Your task to perform on an android device: Open Google Chrome and open the bookmarks view Image 0: 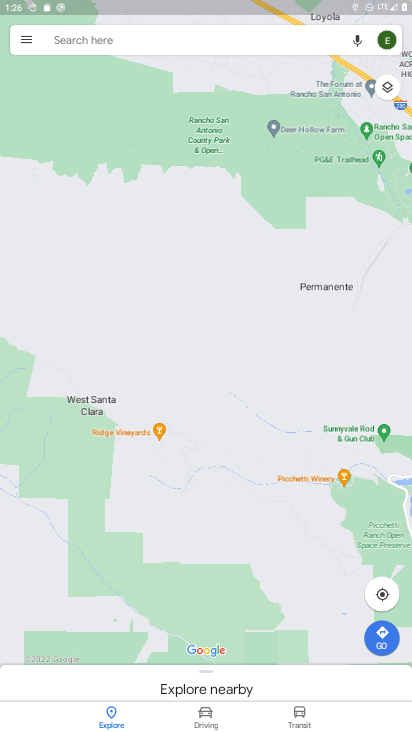
Step 0: press home button
Your task to perform on an android device: Open Google Chrome and open the bookmarks view Image 1: 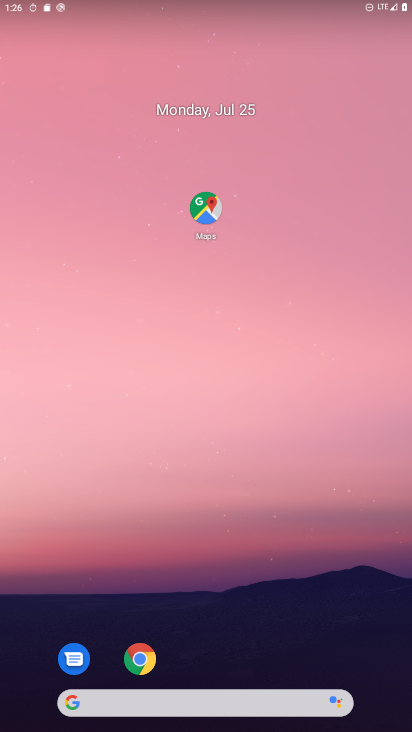
Step 1: click (136, 660)
Your task to perform on an android device: Open Google Chrome and open the bookmarks view Image 2: 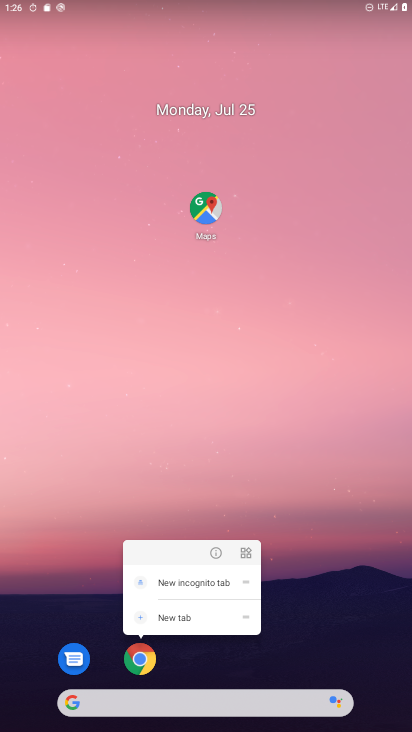
Step 2: click (136, 661)
Your task to perform on an android device: Open Google Chrome and open the bookmarks view Image 3: 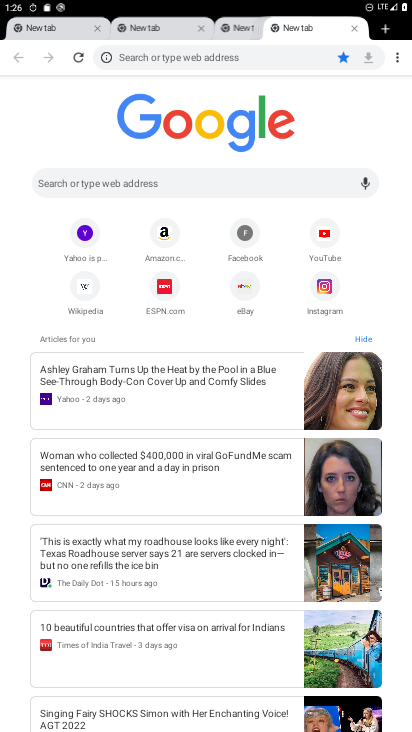
Step 3: click (396, 52)
Your task to perform on an android device: Open Google Chrome and open the bookmarks view Image 4: 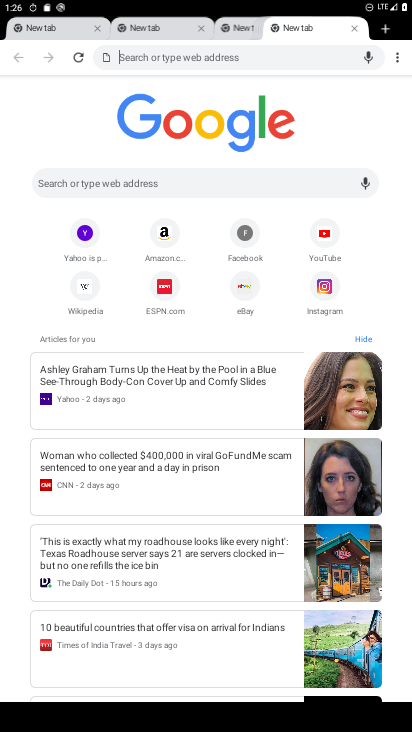
Step 4: click (399, 64)
Your task to perform on an android device: Open Google Chrome and open the bookmarks view Image 5: 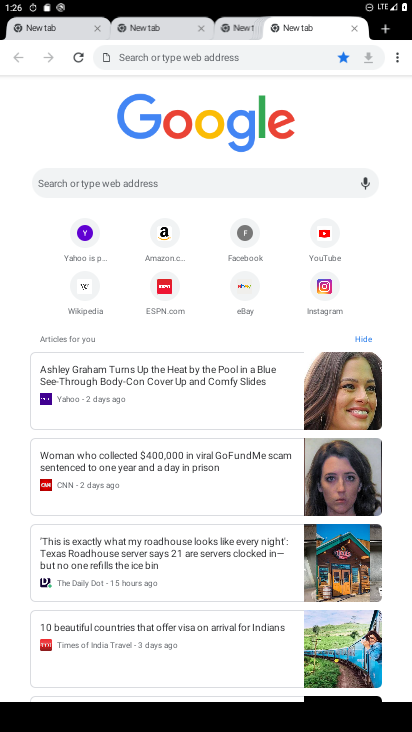
Step 5: click (398, 59)
Your task to perform on an android device: Open Google Chrome and open the bookmarks view Image 6: 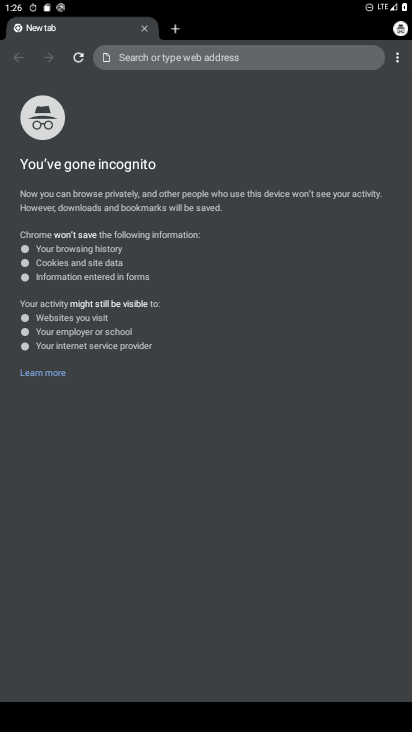
Step 6: task complete